Your task to perform on an android device: open chrome privacy settings Image 0: 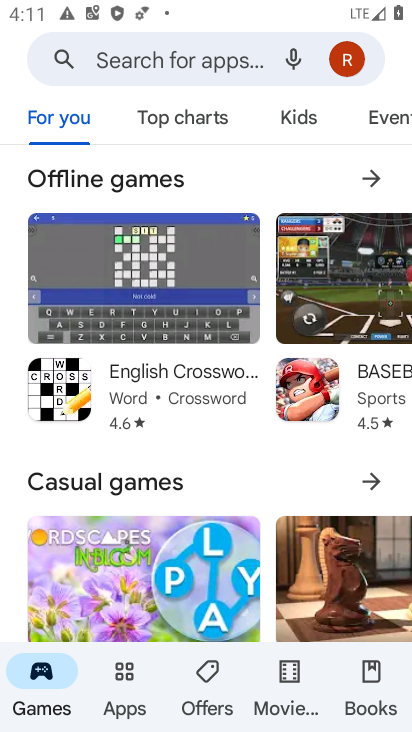
Step 0: press home button
Your task to perform on an android device: open chrome privacy settings Image 1: 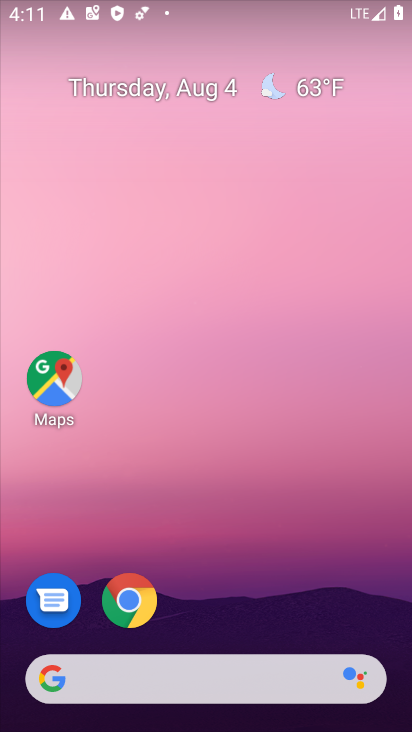
Step 1: drag from (361, 552) to (355, 201)
Your task to perform on an android device: open chrome privacy settings Image 2: 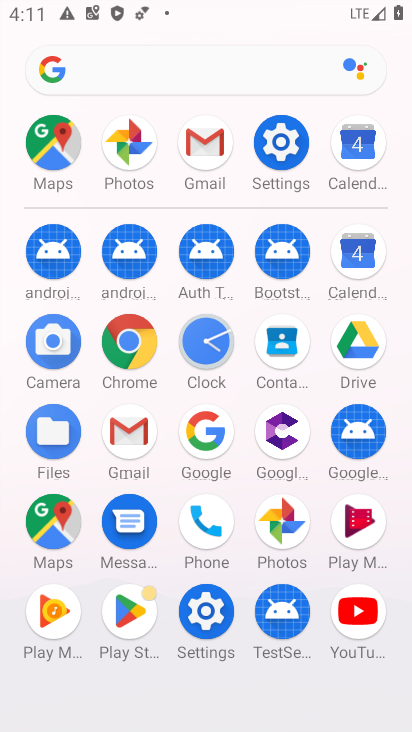
Step 2: click (127, 349)
Your task to perform on an android device: open chrome privacy settings Image 3: 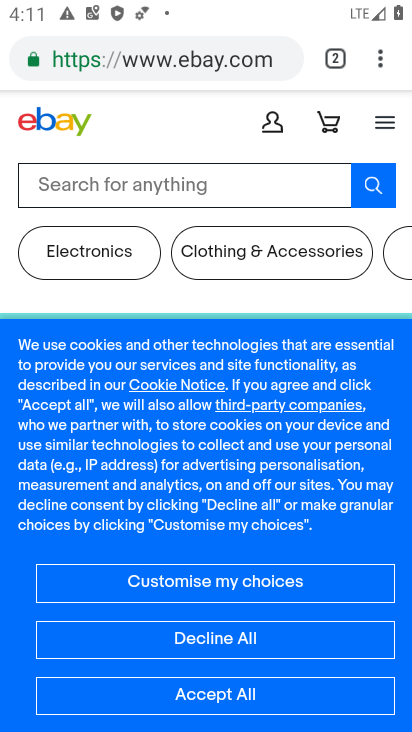
Step 3: drag from (385, 55) to (184, 643)
Your task to perform on an android device: open chrome privacy settings Image 4: 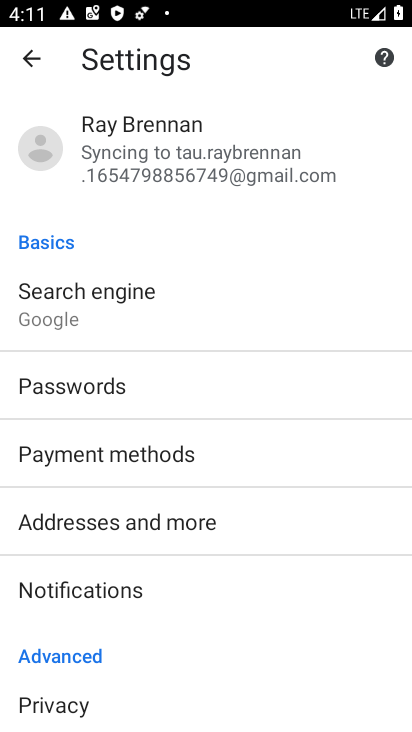
Step 4: drag from (193, 653) to (258, 357)
Your task to perform on an android device: open chrome privacy settings Image 5: 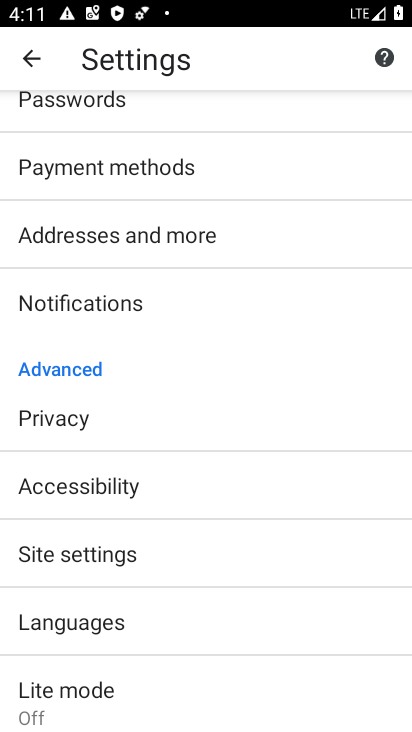
Step 5: click (48, 409)
Your task to perform on an android device: open chrome privacy settings Image 6: 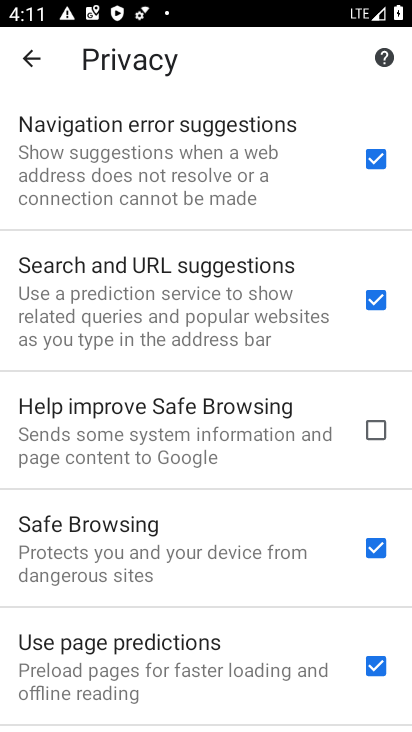
Step 6: task complete